Your task to perform on an android device: read, delete, or share a saved page in the chrome app Image 0: 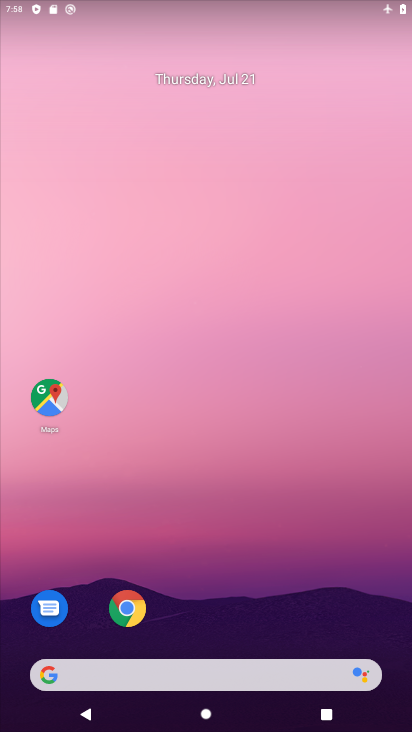
Step 0: press home button
Your task to perform on an android device: read, delete, or share a saved page in the chrome app Image 1: 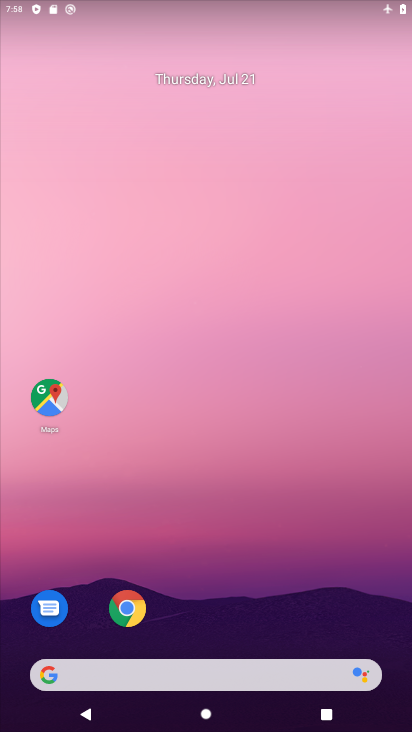
Step 1: click (124, 605)
Your task to perform on an android device: read, delete, or share a saved page in the chrome app Image 2: 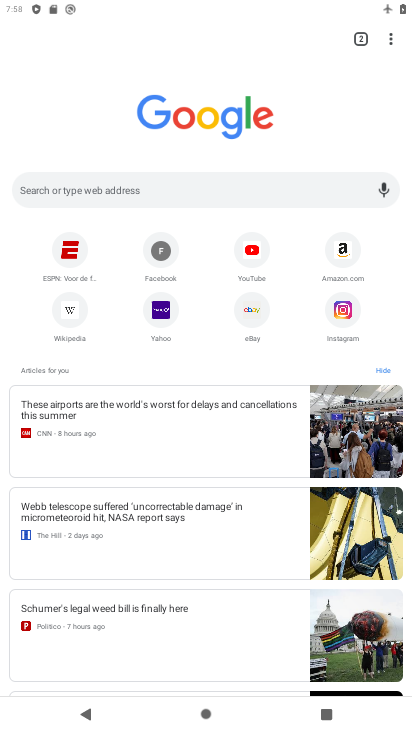
Step 2: click (393, 37)
Your task to perform on an android device: read, delete, or share a saved page in the chrome app Image 3: 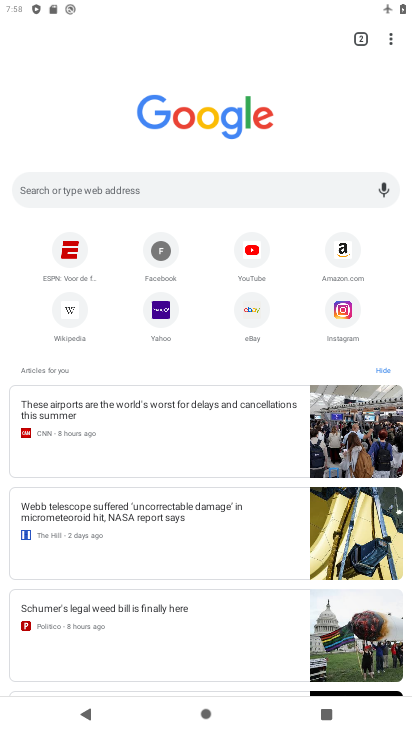
Step 3: click (393, 37)
Your task to perform on an android device: read, delete, or share a saved page in the chrome app Image 4: 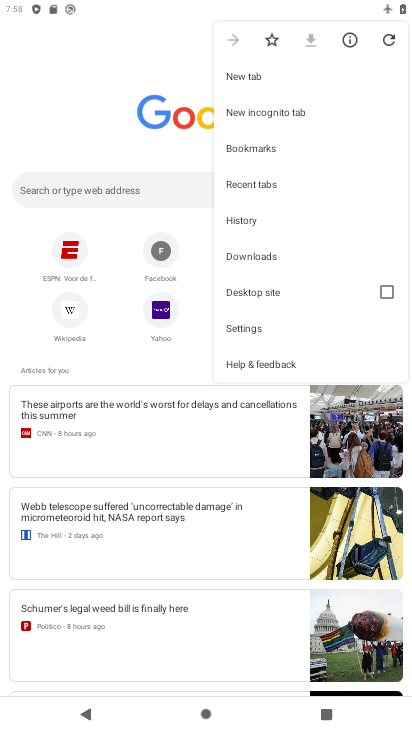
Step 4: click (286, 250)
Your task to perform on an android device: read, delete, or share a saved page in the chrome app Image 5: 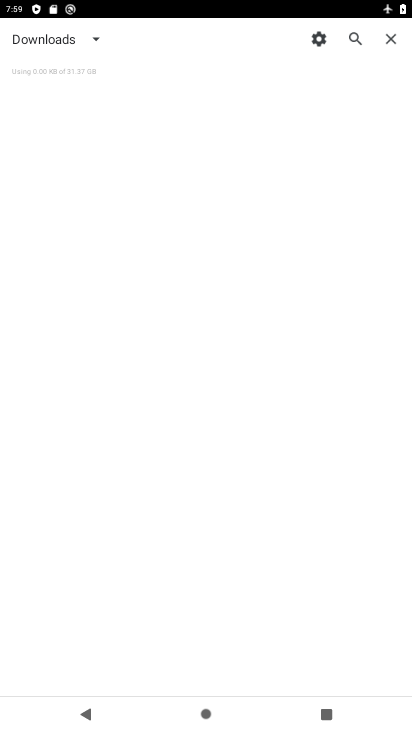
Step 5: task complete